Your task to perform on an android device: snooze an email in the gmail app Image 0: 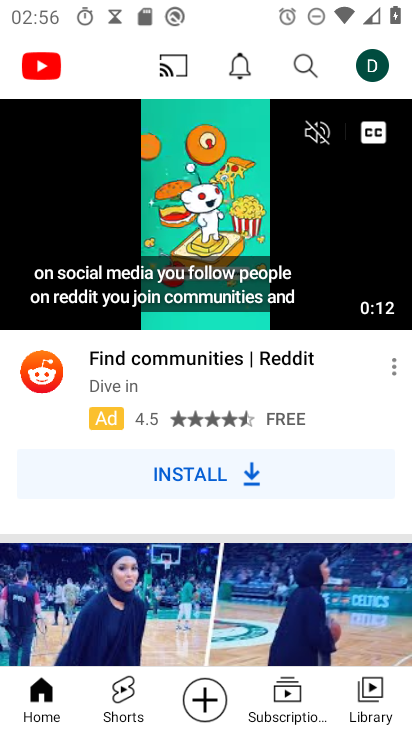
Step 0: press home button
Your task to perform on an android device: snooze an email in the gmail app Image 1: 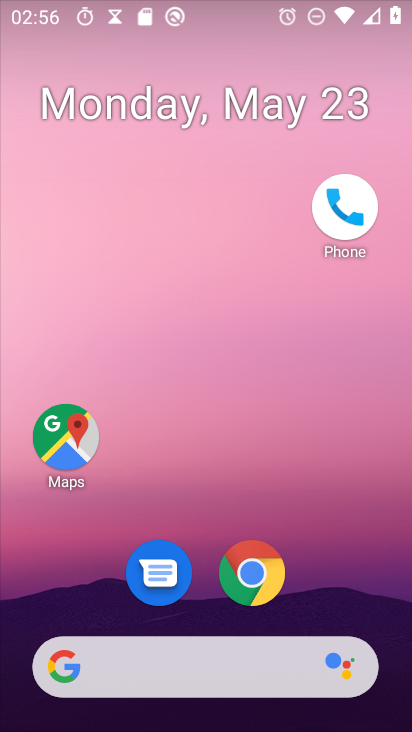
Step 1: drag from (136, 657) to (261, 249)
Your task to perform on an android device: snooze an email in the gmail app Image 2: 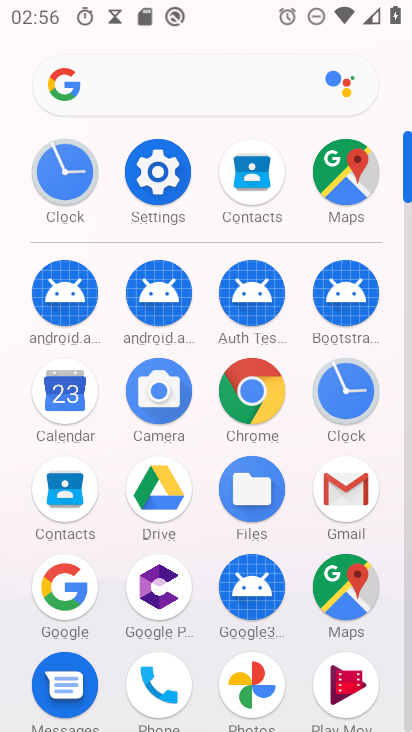
Step 2: click (366, 501)
Your task to perform on an android device: snooze an email in the gmail app Image 3: 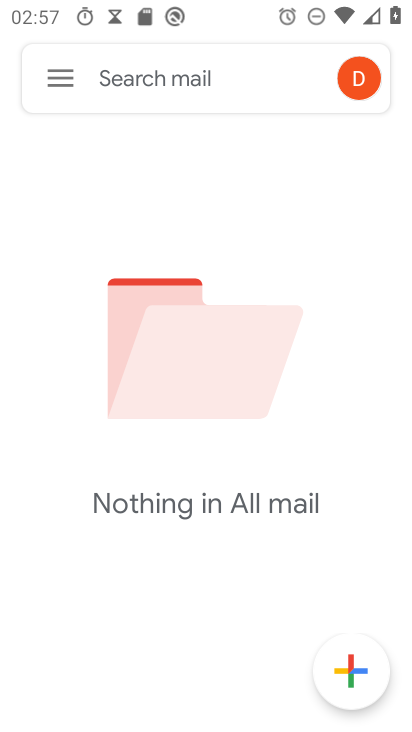
Step 3: task complete